Your task to perform on an android device: Open Youtube and go to "Your channel" Image 0: 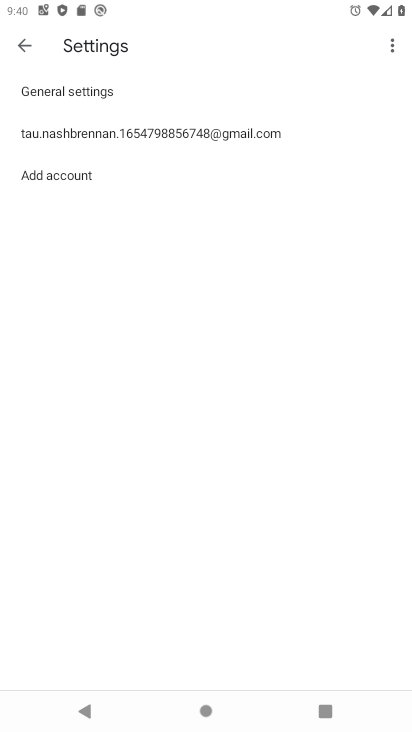
Step 0: click (28, 43)
Your task to perform on an android device: Open Youtube and go to "Your channel" Image 1: 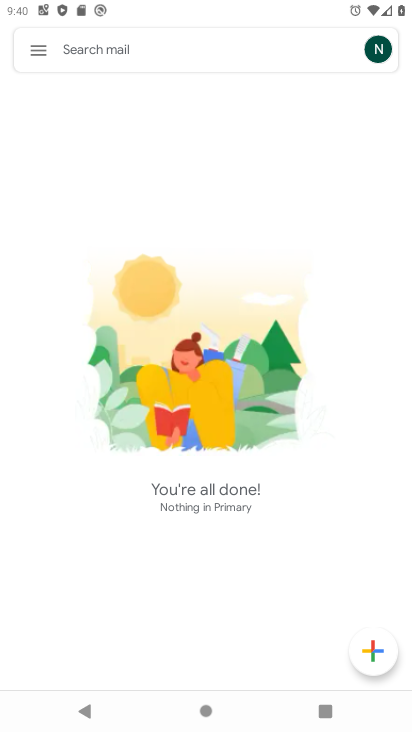
Step 1: press back button
Your task to perform on an android device: Open Youtube and go to "Your channel" Image 2: 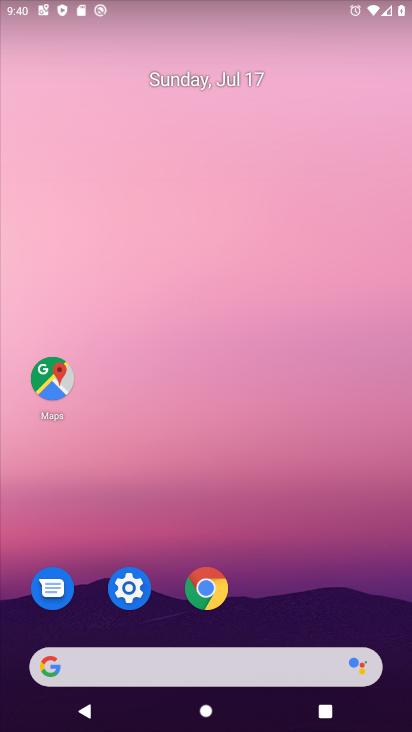
Step 2: drag from (228, 596) to (207, 39)
Your task to perform on an android device: Open Youtube and go to "Your channel" Image 3: 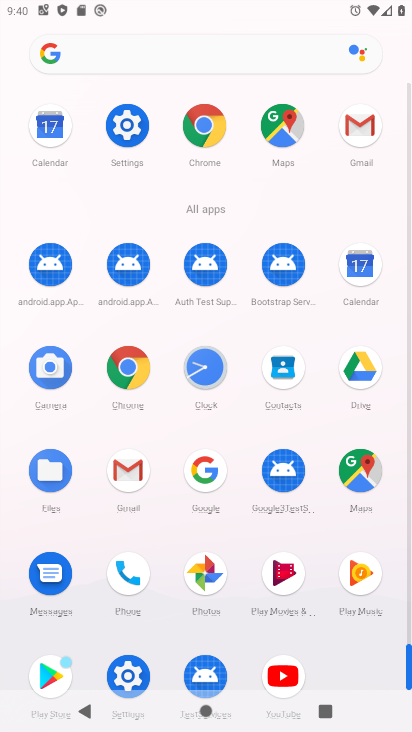
Step 3: click (281, 671)
Your task to perform on an android device: Open Youtube and go to "Your channel" Image 4: 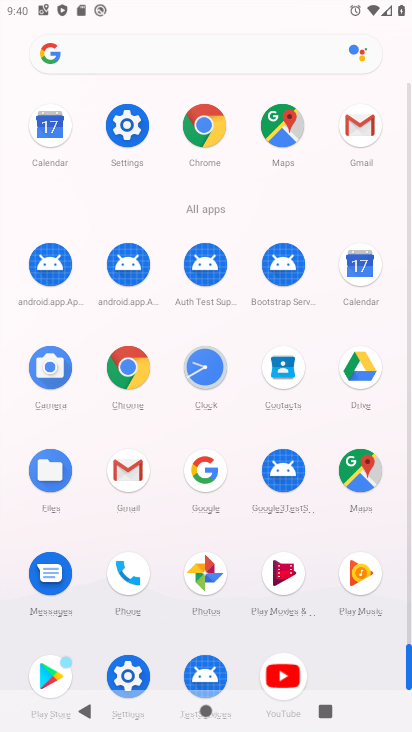
Step 4: click (281, 671)
Your task to perform on an android device: Open Youtube and go to "Your channel" Image 5: 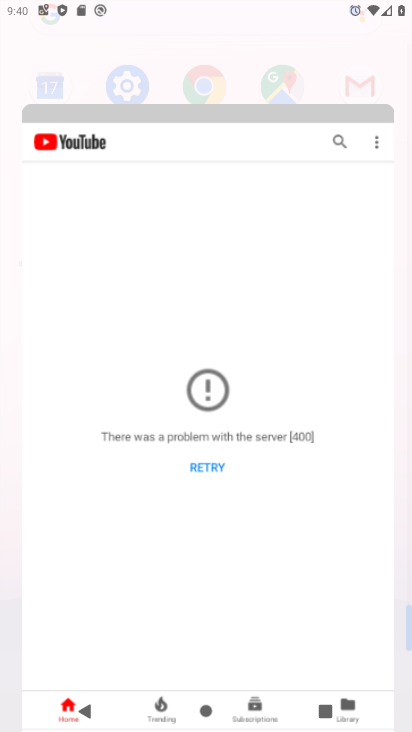
Step 5: click (282, 671)
Your task to perform on an android device: Open Youtube and go to "Your channel" Image 6: 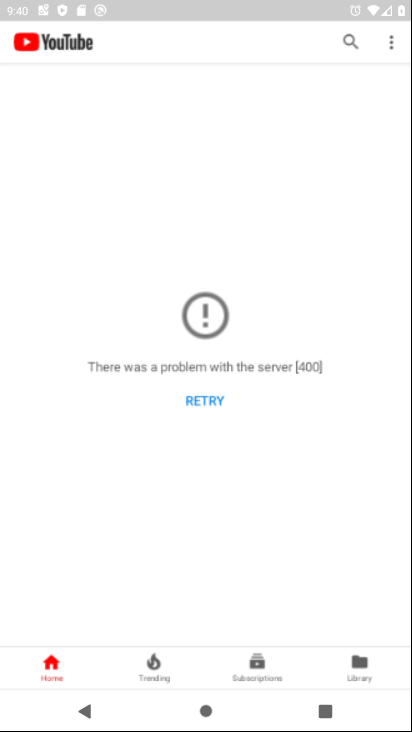
Step 6: click (283, 672)
Your task to perform on an android device: Open Youtube and go to "Your channel" Image 7: 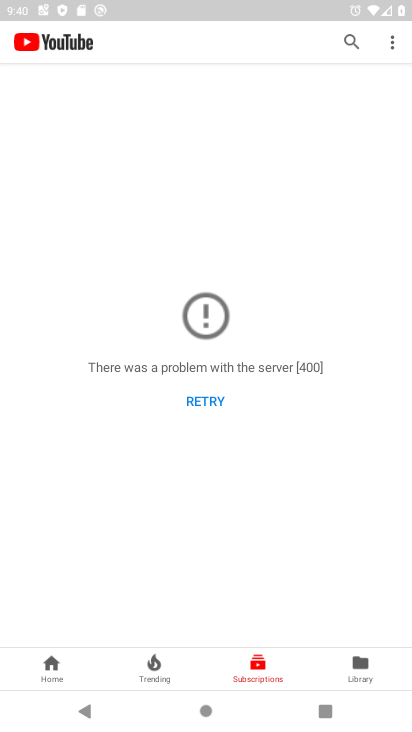
Step 7: drag from (390, 39) to (275, 474)
Your task to perform on an android device: Open Youtube and go to "Your channel" Image 8: 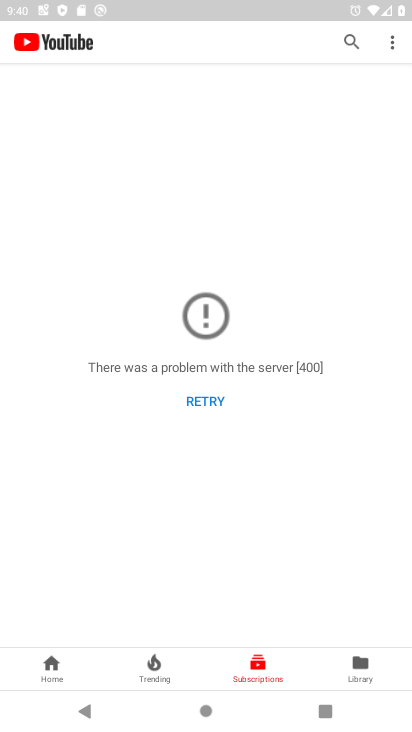
Step 8: drag from (392, 34) to (291, 89)
Your task to perform on an android device: Open Youtube and go to "Your channel" Image 9: 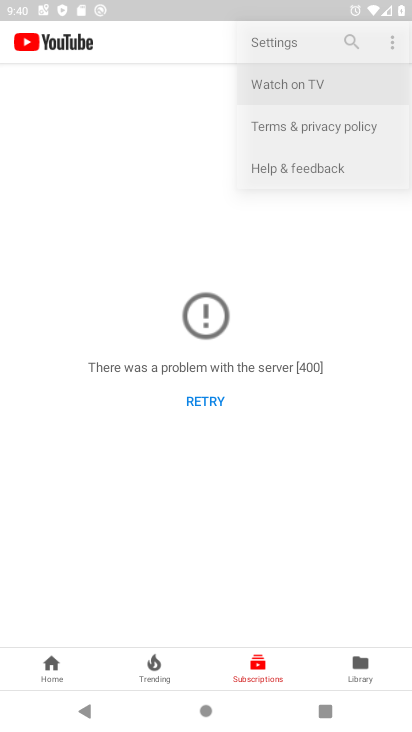
Step 9: click (296, 92)
Your task to perform on an android device: Open Youtube and go to "Your channel" Image 10: 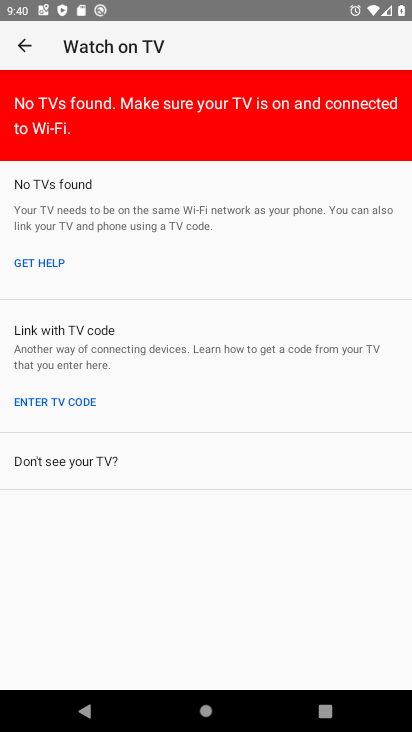
Step 10: task complete